Your task to perform on an android device: Open internet settings Image 0: 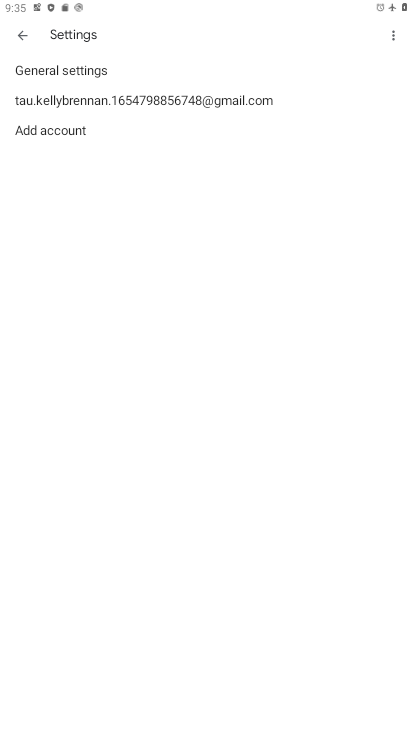
Step 0: press home button
Your task to perform on an android device: Open internet settings Image 1: 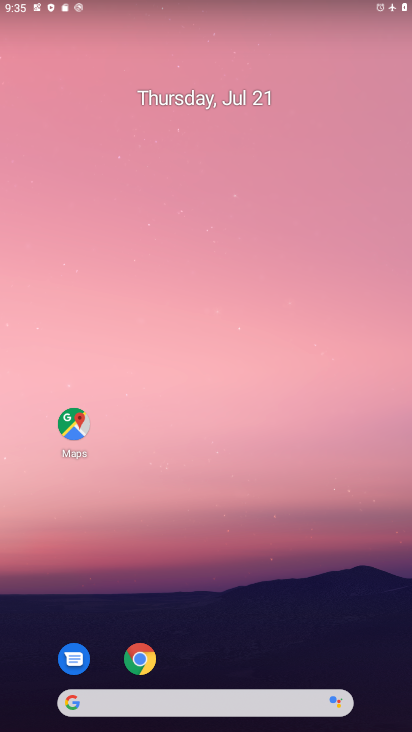
Step 1: drag from (209, 677) to (149, 129)
Your task to perform on an android device: Open internet settings Image 2: 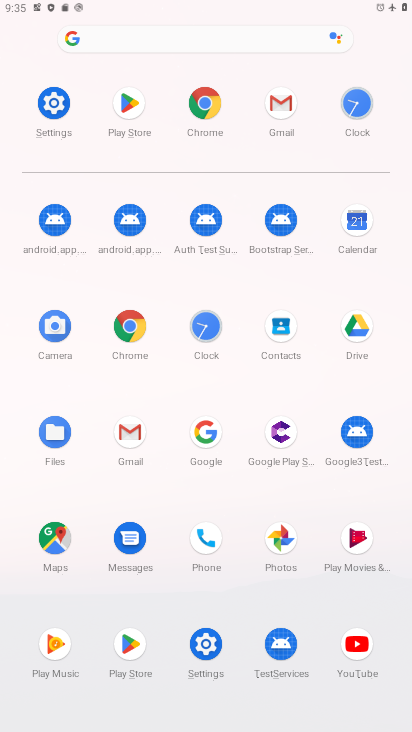
Step 2: click (69, 124)
Your task to perform on an android device: Open internet settings Image 3: 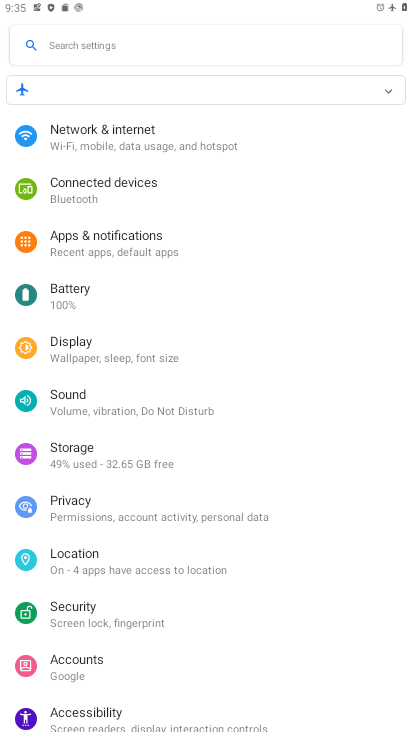
Step 3: click (84, 137)
Your task to perform on an android device: Open internet settings Image 4: 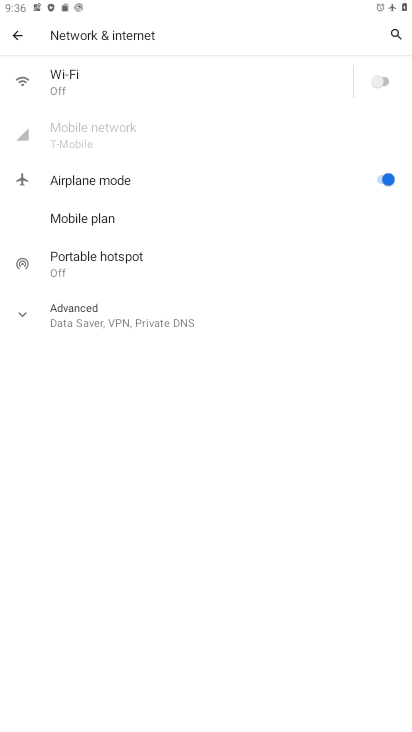
Step 4: task complete